Your task to perform on an android device: toggle pop-ups in chrome Image 0: 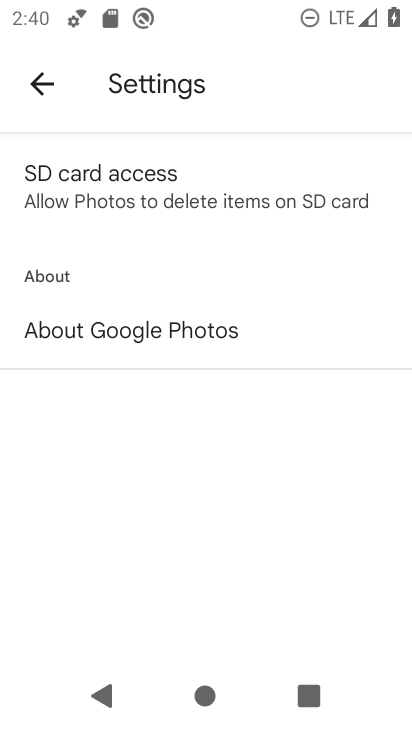
Step 0: press home button
Your task to perform on an android device: toggle pop-ups in chrome Image 1: 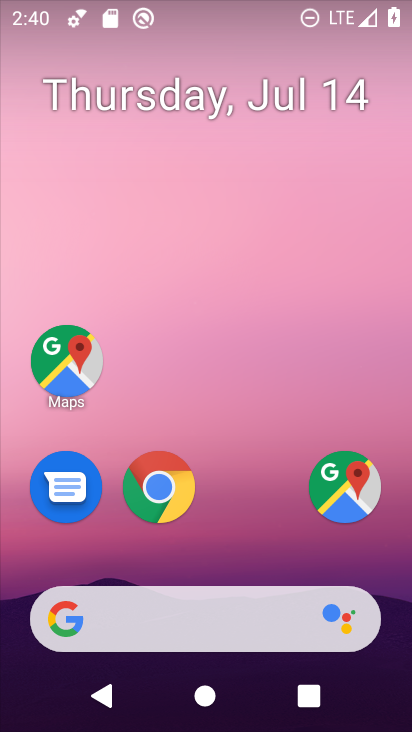
Step 1: drag from (257, 553) to (249, 169)
Your task to perform on an android device: toggle pop-ups in chrome Image 2: 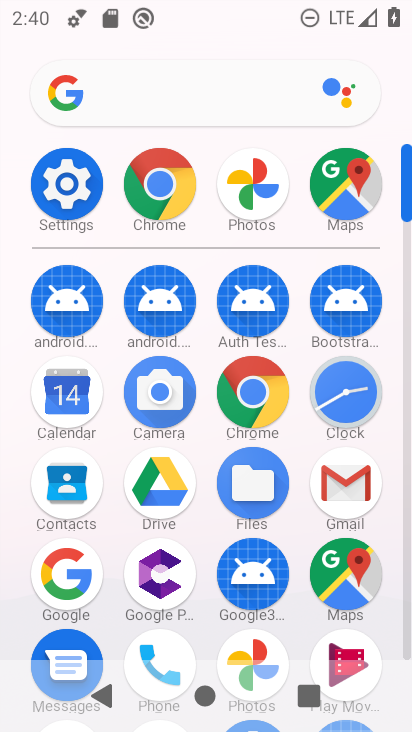
Step 2: click (273, 402)
Your task to perform on an android device: toggle pop-ups in chrome Image 3: 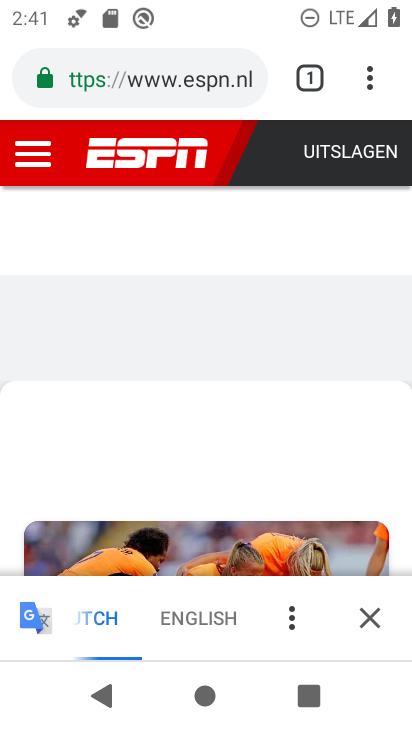
Step 3: click (373, 87)
Your task to perform on an android device: toggle pop-ups in chrome Image 4: 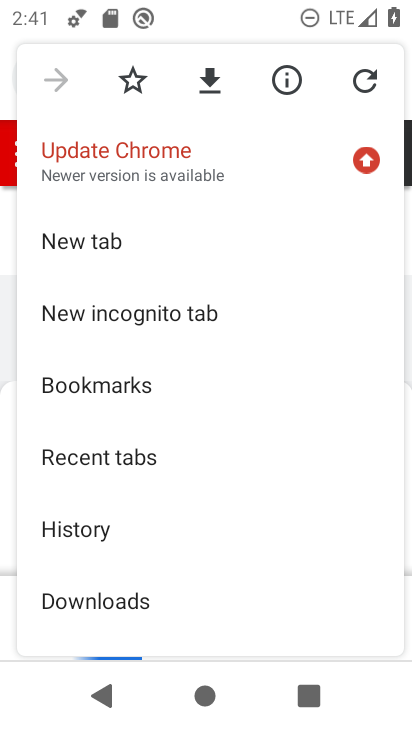
Step 4: drag from (255, 481) to (264, 385)
Your task to perform on an android device: toggle pop-ups in chrome Image 5: 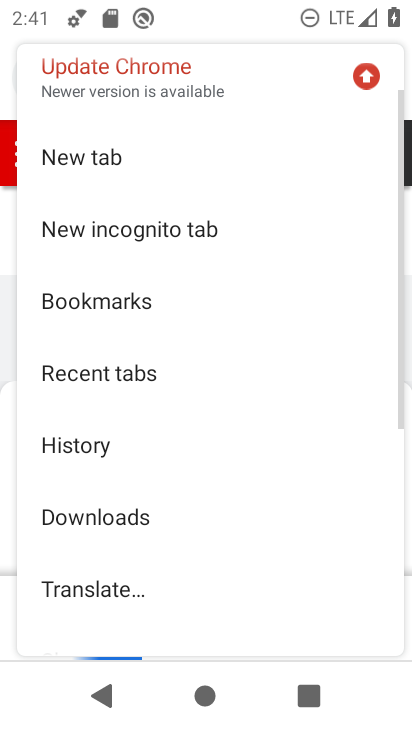
Step 5: drag from (248, 513) to (266, 366)
Your task to perform on an android device: toggle pop-ups in chrome Image 6: 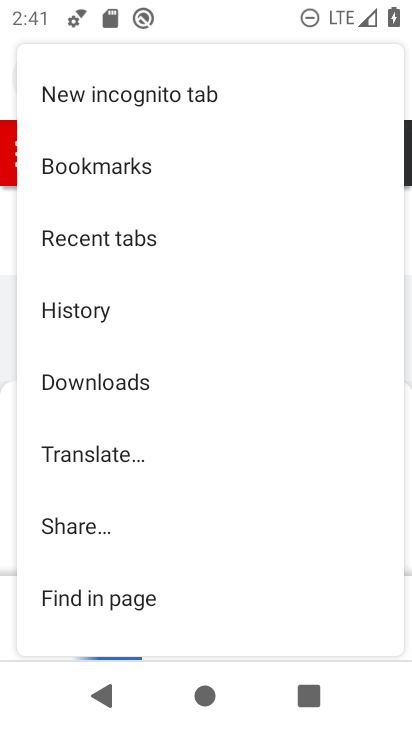
Step 6: drag from (266, 509) to (297, 331)
Your task to perform on an android device: toggle pop-ups in chrome Image 7: 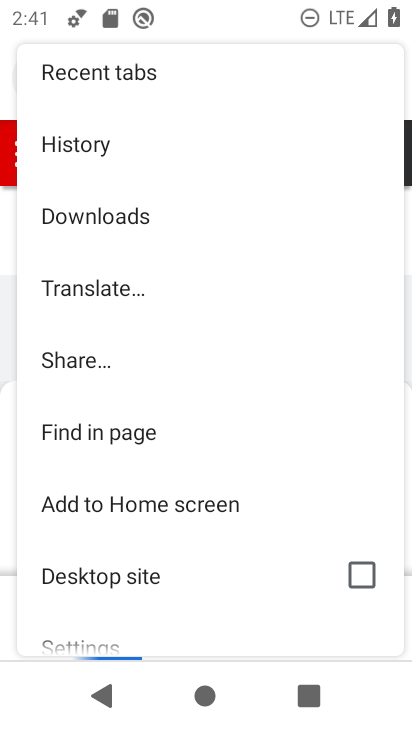
Step 7: drag from (289, 457) to (295, 363)
Your task to perform on an android device: toggle pop-ups in chrome Image 8: 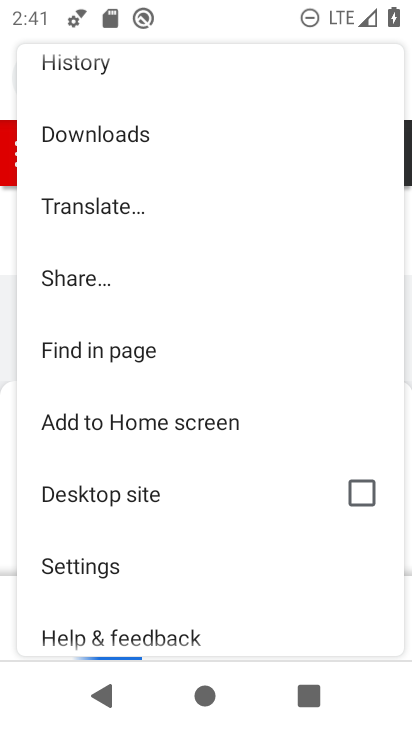
Step 8: drag from (272, 523) to (288, 406)
Your task to perform on an android device: toggle pop-ups in chrome Image 9: 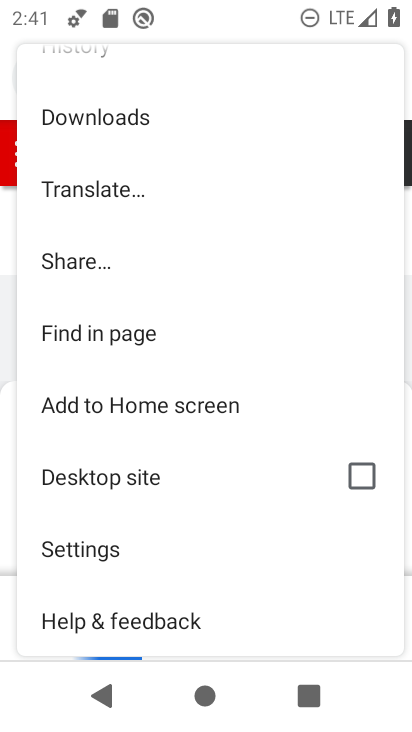
Step 9: click (178, 549)
Your task to perform on an android device: toggle pop-ups in chrome Image 10: 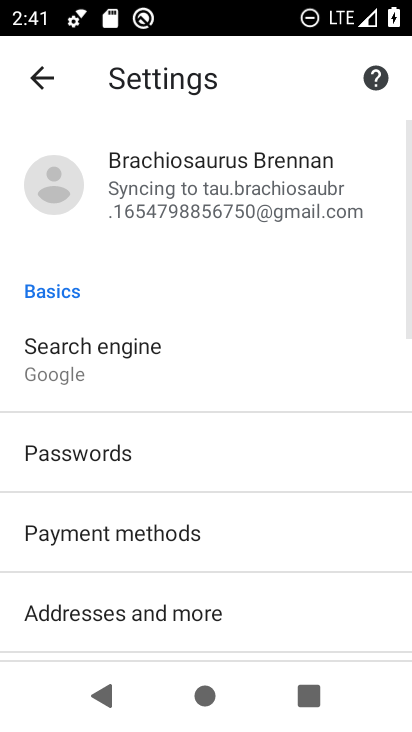
Step 10: drag from (344, 544) to (350, 422)
Your task to perform on an android device: toggle pop-ups in chrome Image 11: 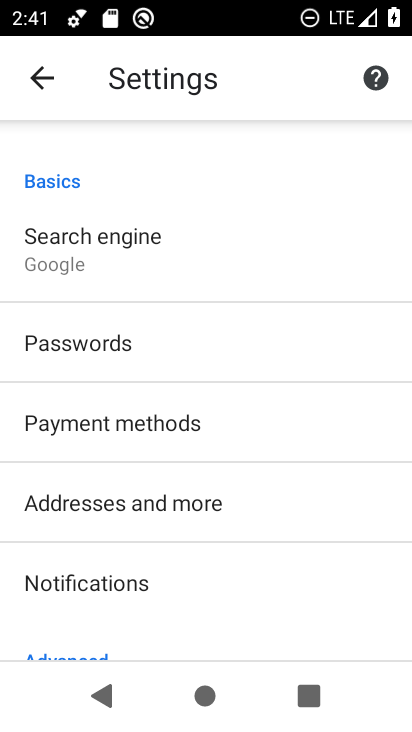
Step 11: drag from (344, 551) to (344, 450)
Your task to perform on an android device: toggle pop-ups in chrome Image 12: 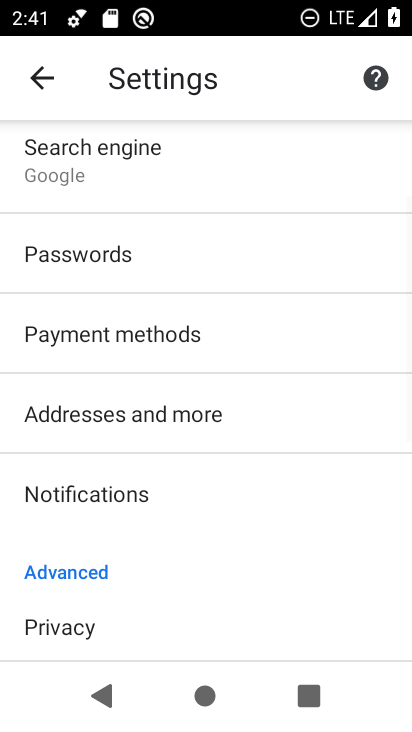
Step 12: drag from (325, 538) to (323, 430)
Your task to perform on an android device: toggle pop-ups in chrome Image 13: 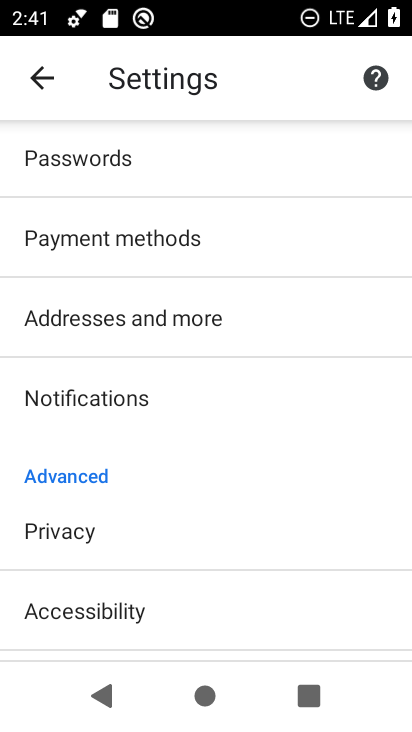
Step 13: drag from (311, 539) to (302, 423)
Your task to perform on an android device: toggle pop-ups in chrome Image 14: 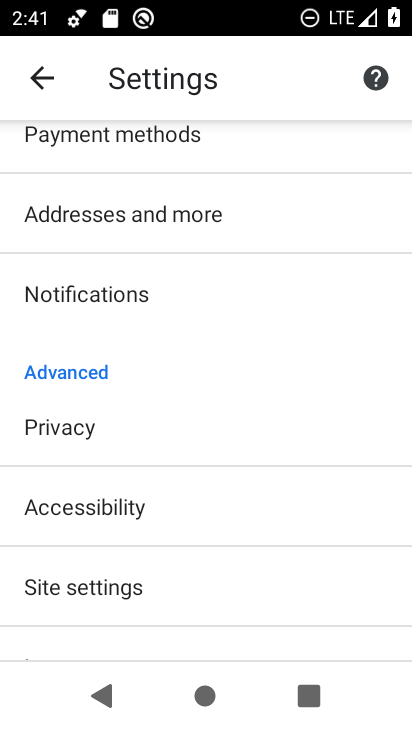
Step 14: drag from (301, 553) to (301, 456)
Your task to perform on an android device: toggle pop-ups in chrome Image 15: 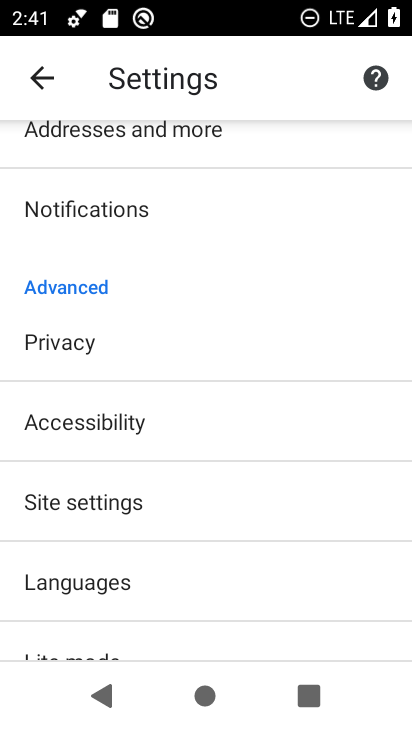
Step 15: click (291, 497)
Your task to perform on an android device: toggle pop-ups in chrome Image 16: 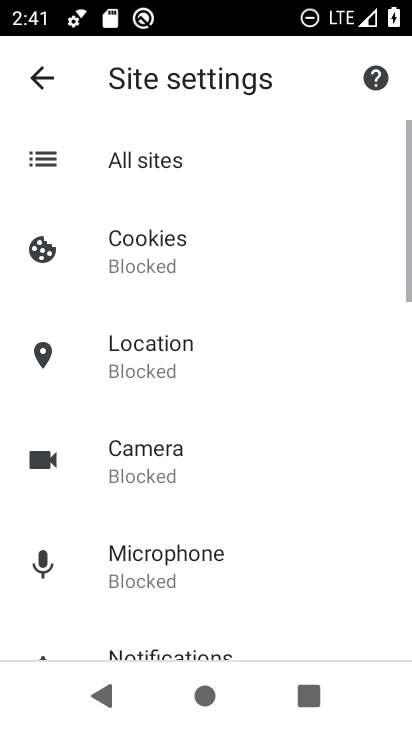
Step 16: drag from (299, 527) to (301, 460)
Your task to perform on an android device: toggle pop-ups in chrome Image 17: 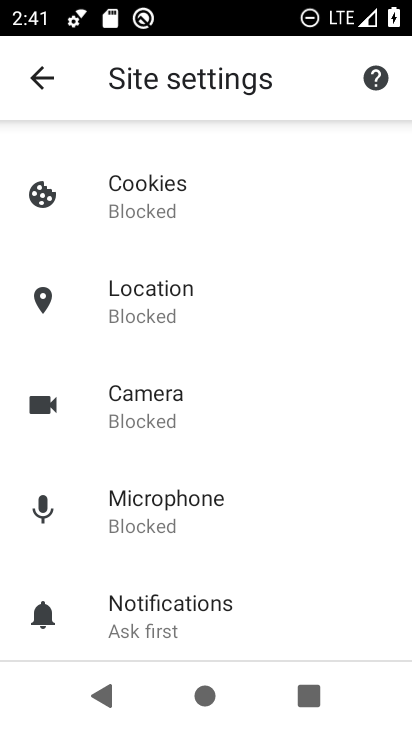
Step 17: drag from (330, 539) to (333, 490)
Your task to perform on an android device: toggle pop-ups in chrome Image 18: 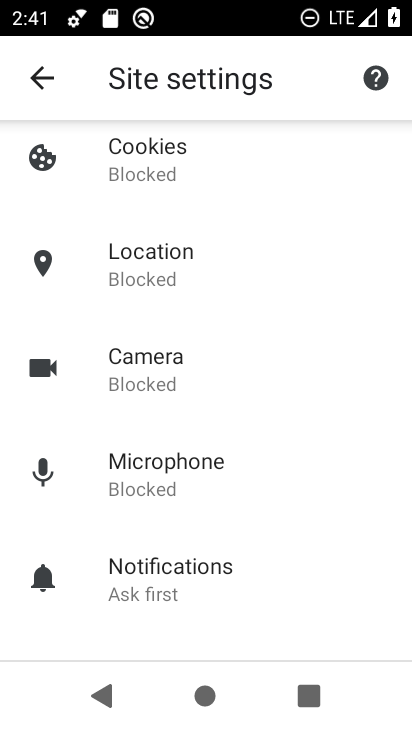
Step 18: drag from (330, 530) to (332, 448)
Your task to perform on an android device: toggle pop-ups in chrome Image 19: 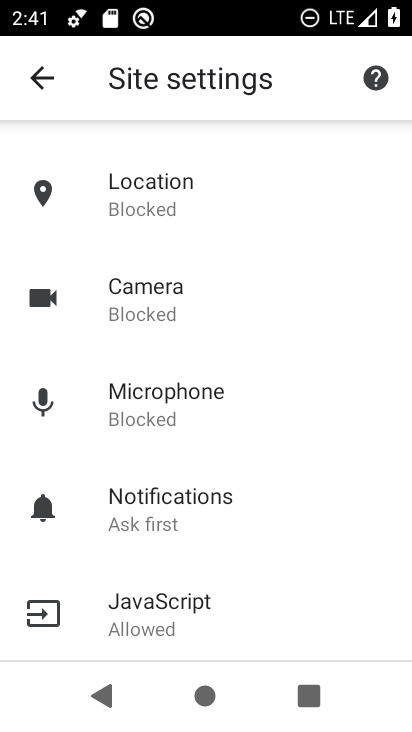
Step 19: drag from (323, 529) to (321, 460)
Your task to perform on an android device: toggle pop-ups in chrome Image 20: 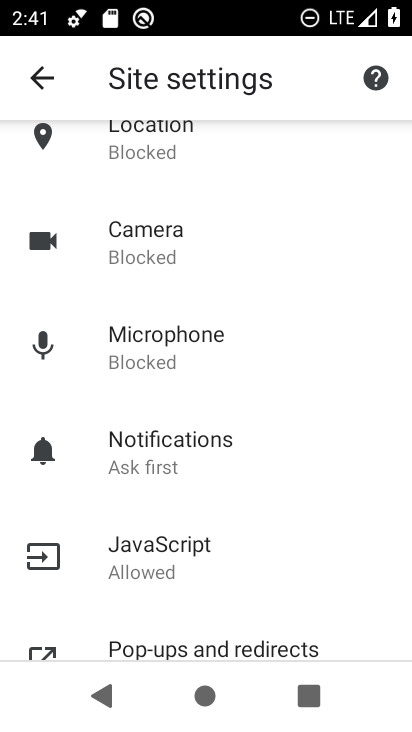
Step 20: drag from (321, 526) to (322, 449)
Your task to perform on an android device: toggle pop-ups in chrome Image 21: 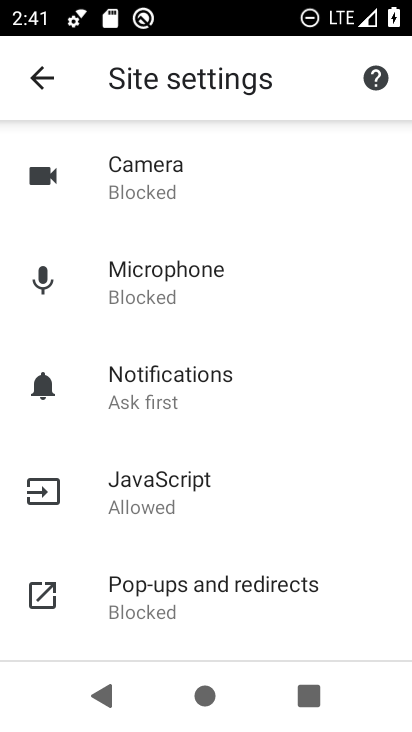
Step 21: drag from (327, 503) to (327, 440)
Your task to perform on an android device: toggle pop-ups in chrome Image 22: 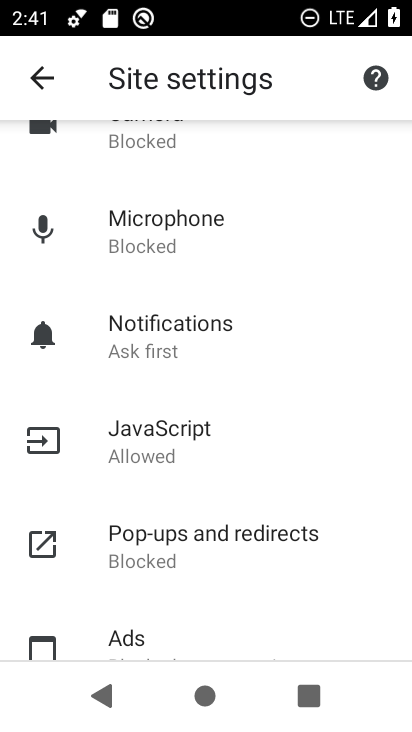
Step 22: drag from (329, 543) to (335, 447)
Your task to perform on an android device: toggle pop-ups in chrome Image 23: 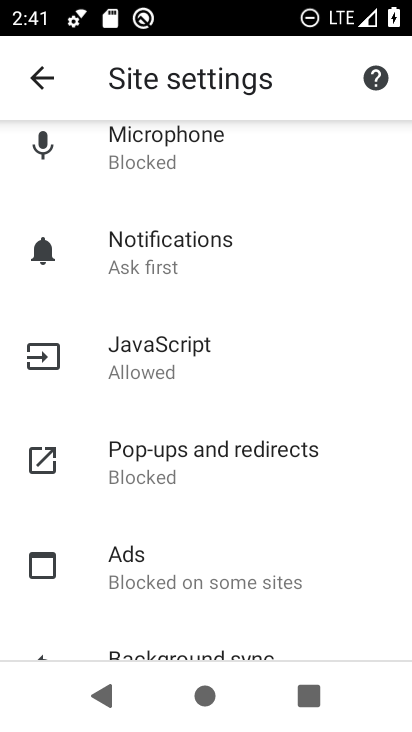
Step 23: click (313, 487)
Your task to perform on an android device: toggle pop-ups in chrome Image 24: 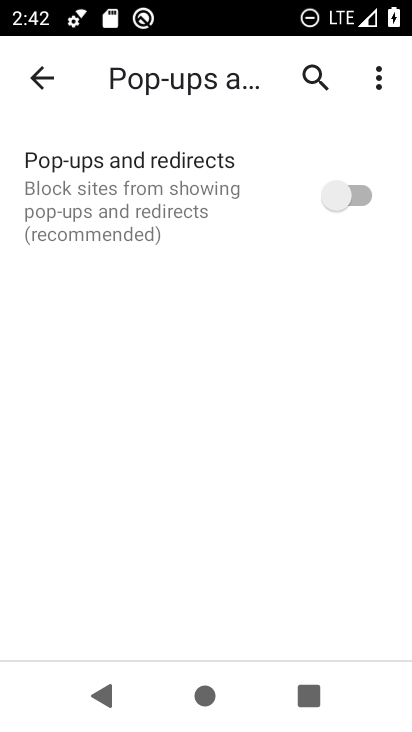
Step 24: click (338, 195)
Your task to perform on an android device: toggle pop-ups in chrome Image 25: 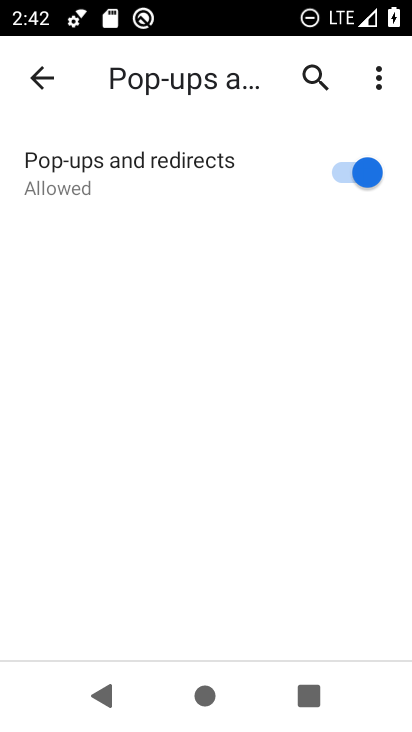
Step 25: task complete